Your task to perform on an android device: change text size in settings app Image 0: 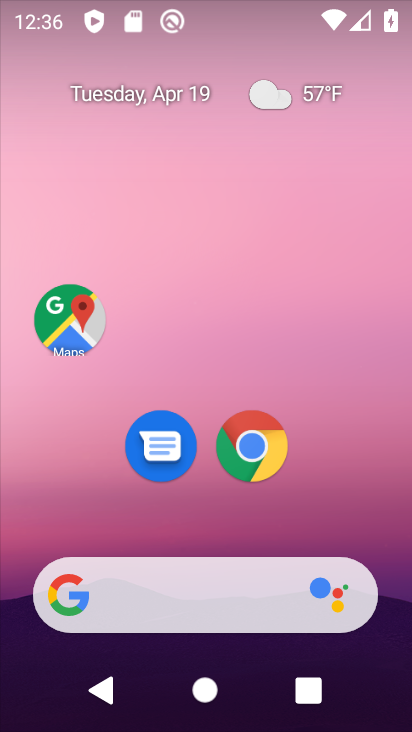
Step 0: drag from (356, 489) to (344, 135)
Your task to perform on an android device: change text size in settings app Image 1: 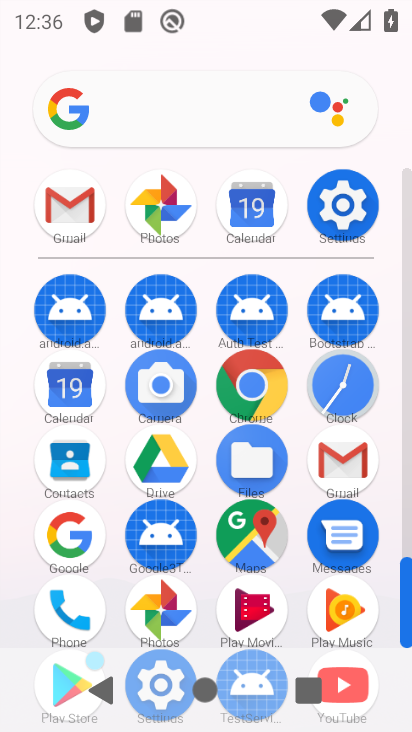
Step 1: click (344, 198)
Your task to perform on an android device: change text size in settings app Image 2: 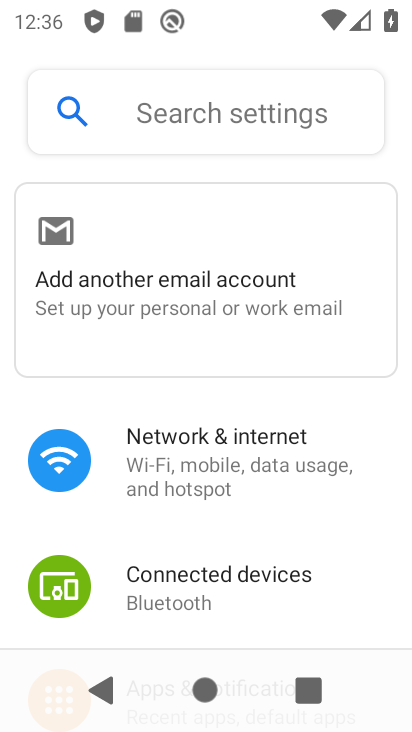
Step 2: drag from (305, 533) to (336, 112)
Your task to perform on an android device: change text size in settings app Image 3: 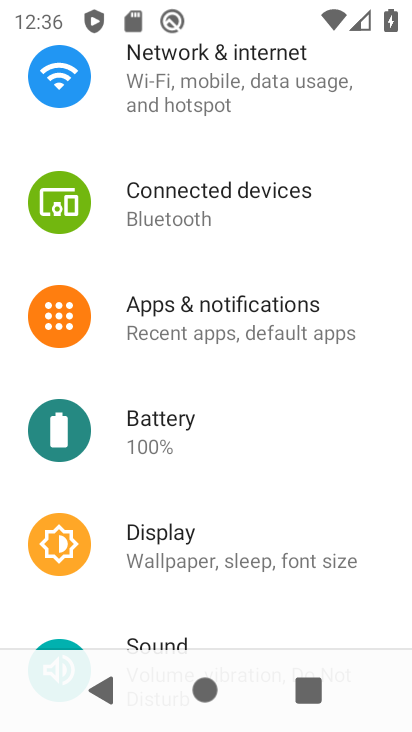
Step 3: click (250, 548)
Your task to perform on an android device: change text size in settings app Image 4: 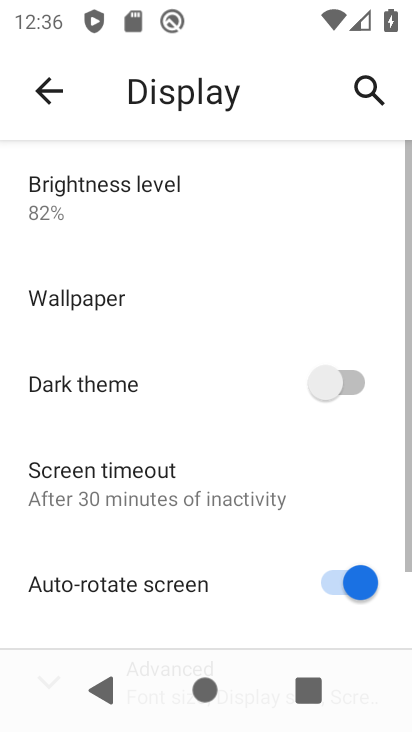
Step 4: drag from (269, 499) to (345, 131)
Your task to perform on an android device: change text size in settings app Image 5: 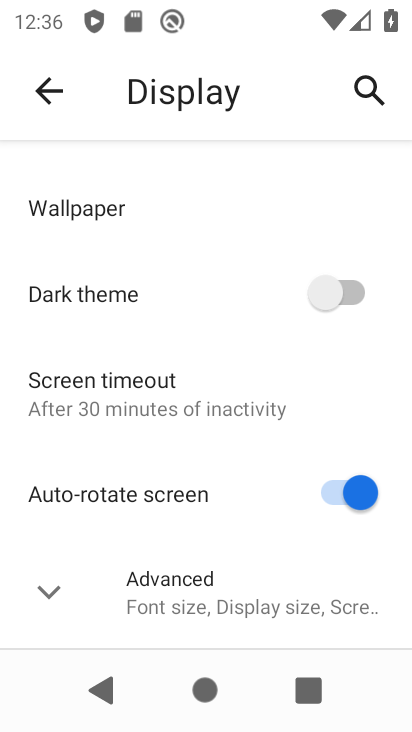
Step 5: click (38, 579)
Your task to perform on an android device: change text size in settings app Image 6: 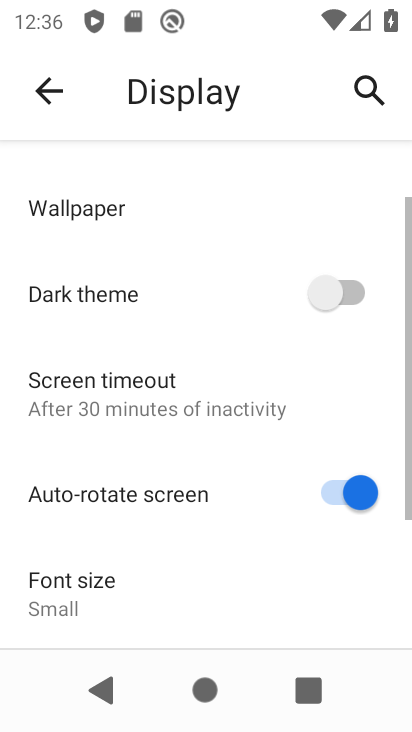
Step 6: drag from (216, 501) to (306, 146)
Your task to perform on an android device: change text size in settings app Image 7: 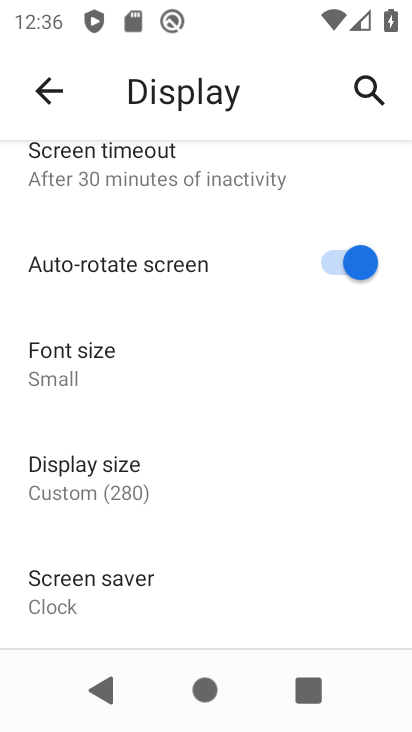
Step 7: click (129, 359)
Your task to perform on an android device: change text size in settings app Image 8: 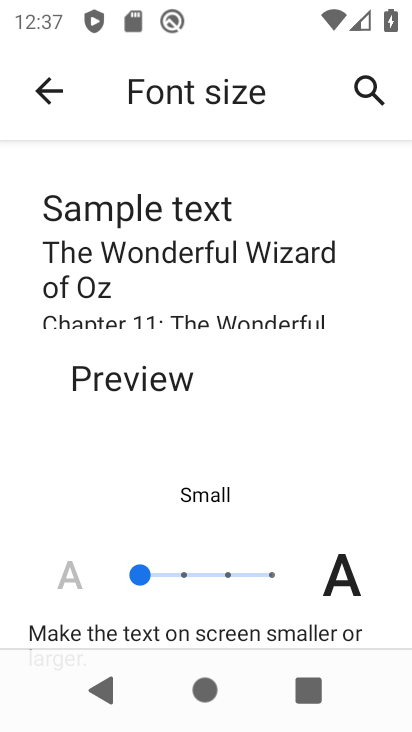
Step 8: click (178, 567)
Your task to perform on an android device: change text size in settings app Image 9: 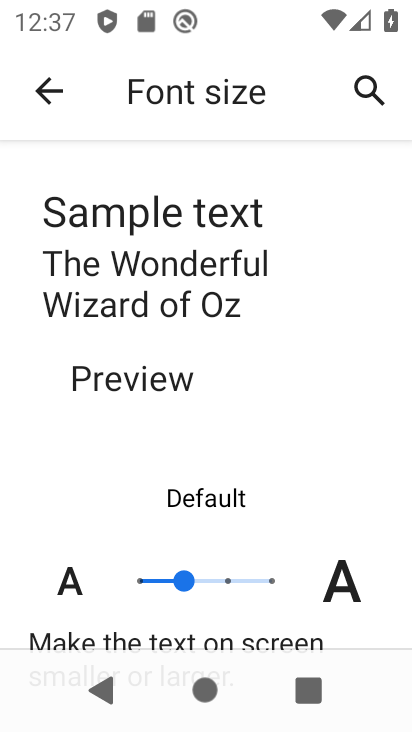
Step 9: task complete